Your task to perform on an android device: Open calendar and show me the third week of next month Image 0: 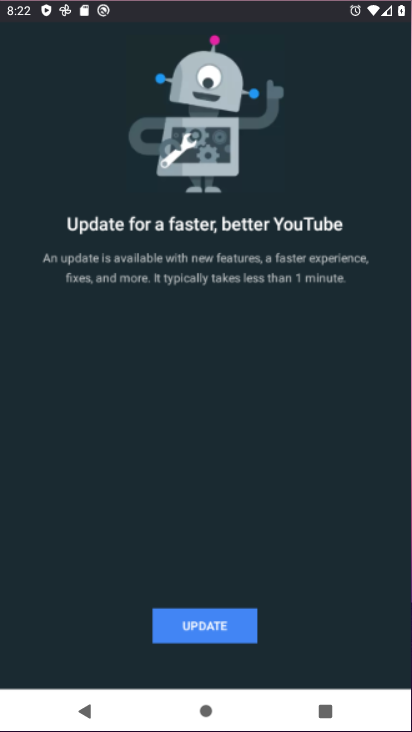
Step 0: drag from (395, 665) to (241, 127)
Your task to perform on an android device: Open calendar and show me the third week of next month Image 1: 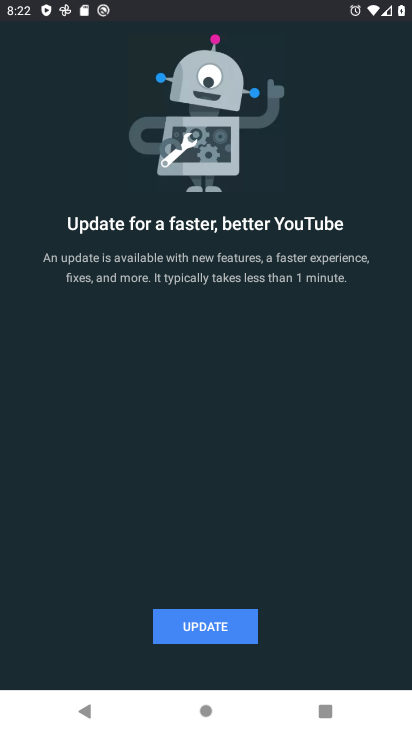
Step 1: press back button
Your task to perform on an android device: Open calendar and show me the third week of next month Image 2: 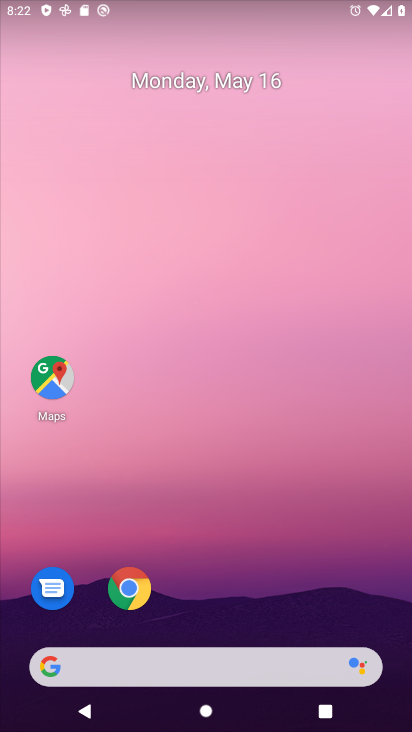
Step 2: drag from (377, 606) to (172, 209)
Your task to perform on an android device: Open calendar and show me the third week of next month Image 3: 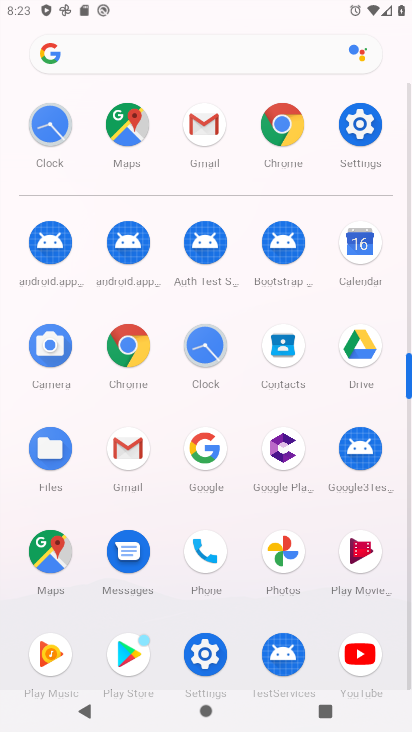
Step 3: click (367, 248)
Your task to perform on an android device: Open calendar and show me the third week of next month Image 4: 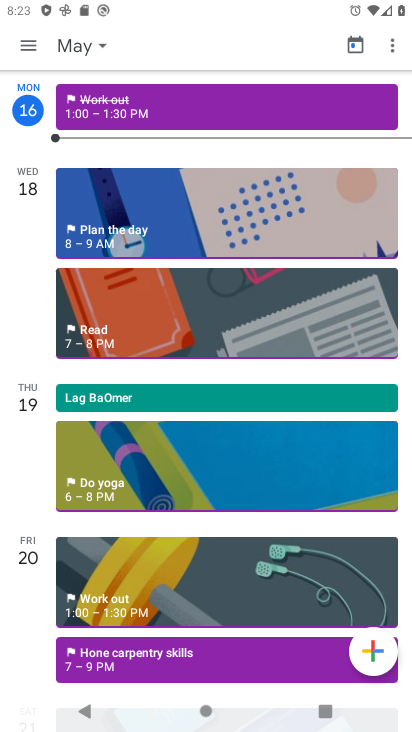
Step 4: click (99, 44)
Your task to perform on an android device: Open calendar and show me the third week of next month Image 5: 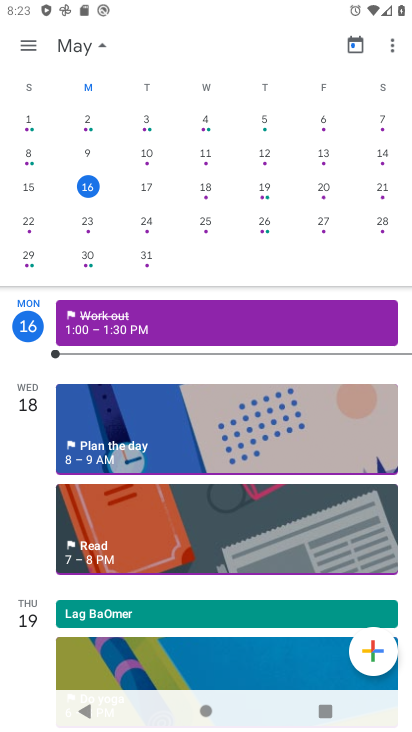
Step 5: drag from (242, 192) to (2, 162)
Your task to perform on an android device: Open calendar and show me the third week of next month Image 6: 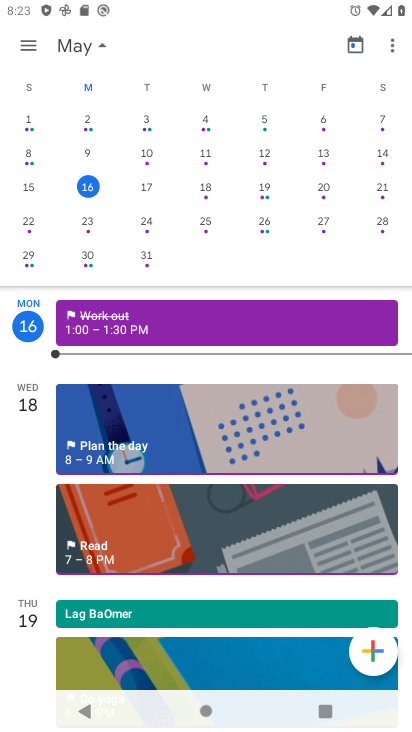
Step 6: drag from (274, 168) to (10, 187)
Your task to perform on an android device: Open calendar and show me the third week of next month Image 7: 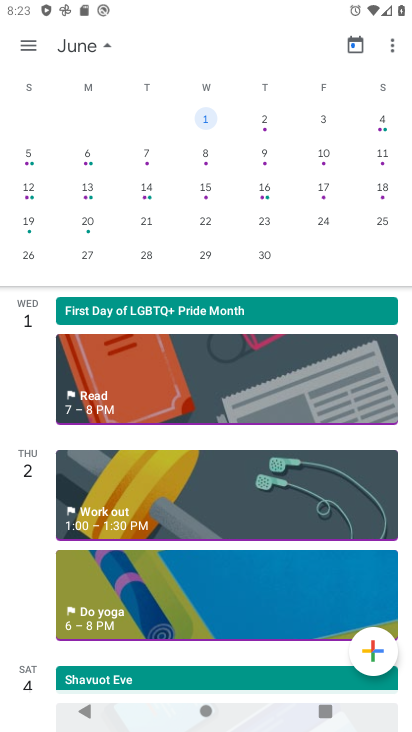
Step 7: drag from (186, 175) to (26, 151)
Your task to perform on an android device: Open calendar and show me the third week of next month Image 8: 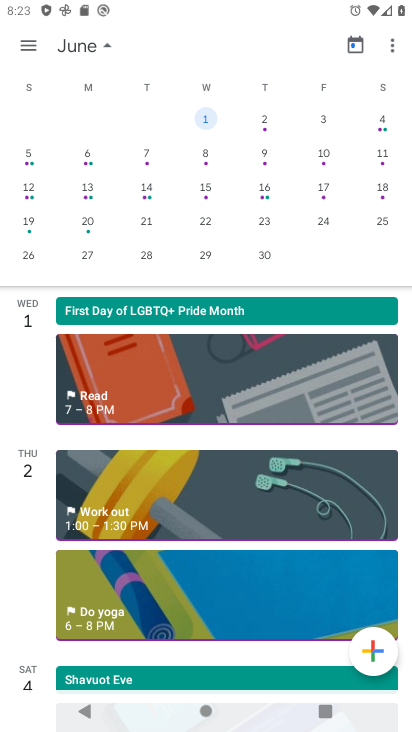
Step 8: click (205, 189)
Your task to perform on an android device: Open calendar and show me the third week of next month Image 9: 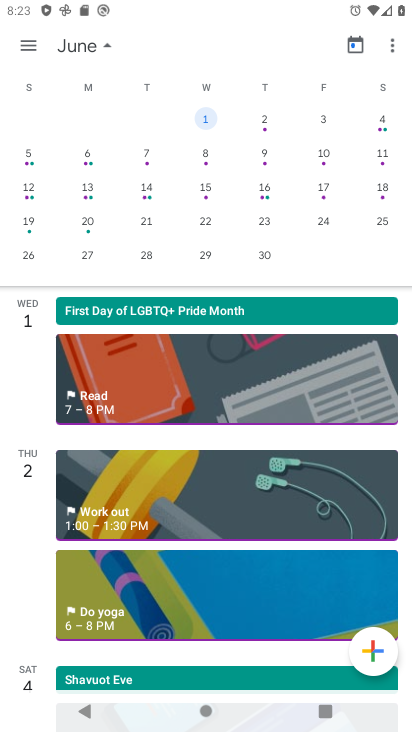
Step 9: click (205, 189)
Your task to perform on an android device: Open calendar and show me the third week of next month Image 10: 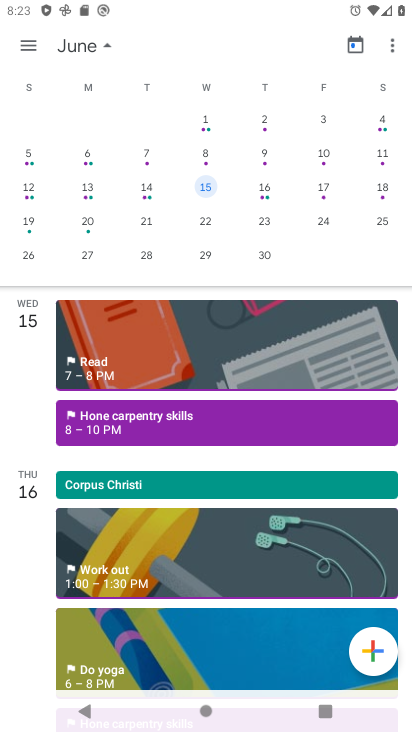
Step 10: click (205, 189)
Your task to perform on an android device: Open calendar and show me the third week of next month Image 11: 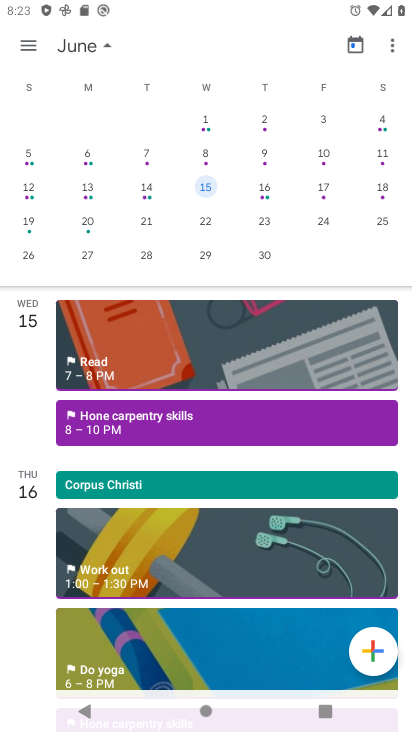
Step 11: task complete